Your task to perform on an android device: Open my contact list Image 0: 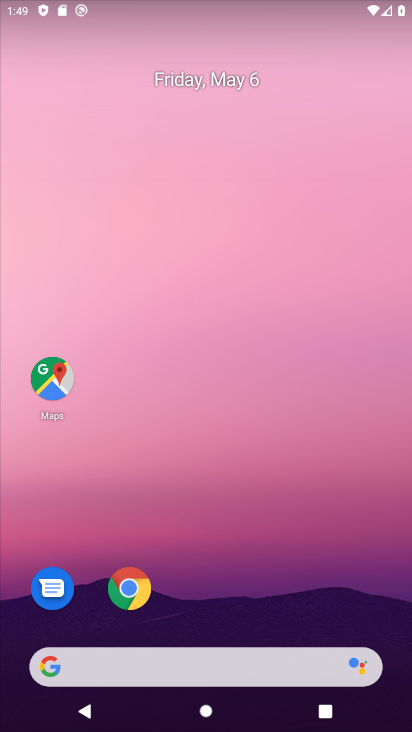
Step 0: drag from (174, 620) to (294, 0)
Your task to perform on an android device: Open my contact list Image 1: 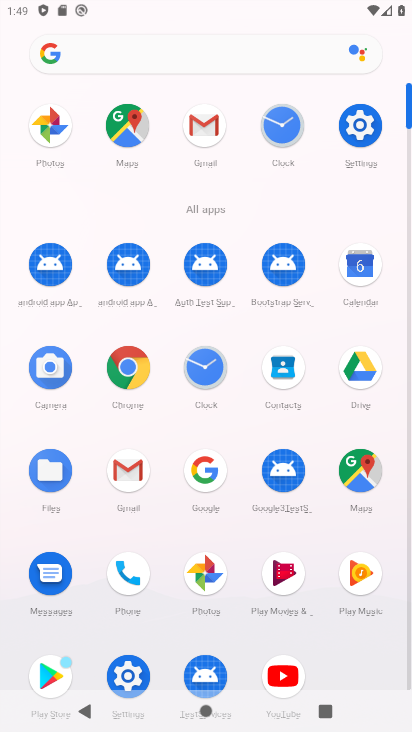
Step 1: click (277, 351)
Your task to perform on an android device: Open my contact list Image 2: 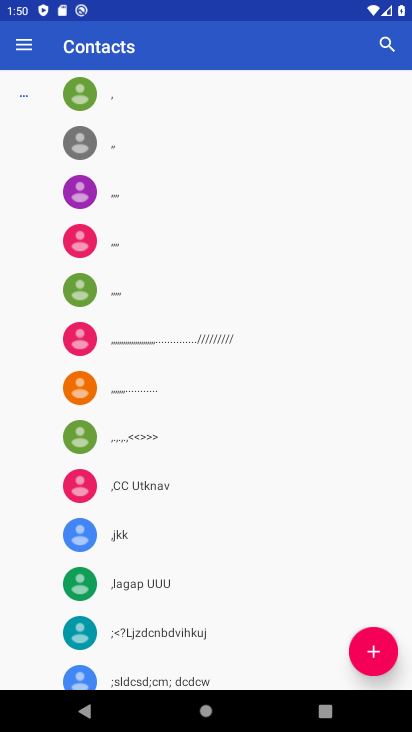
Step 2: task complete